Your task to perform on an android device: Open battery settings Image 0: 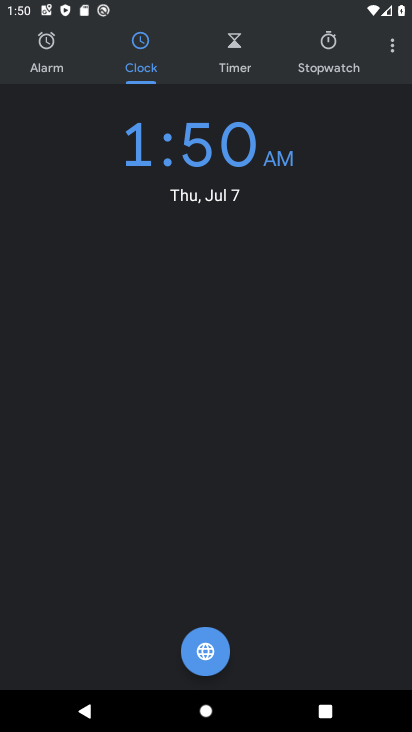
Step 0: press back button
Your task to perform on an android device: Open battery settings Image 1: 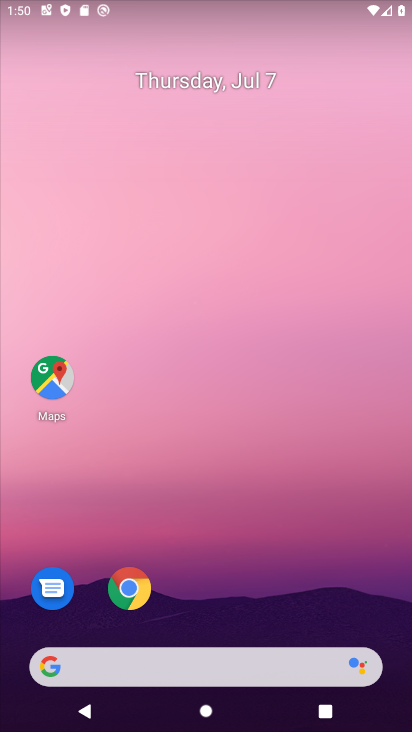
Step 1: drag from (191, 651) to (269, 57)
Your task to perform on an android device: Open battery settings Image 2: 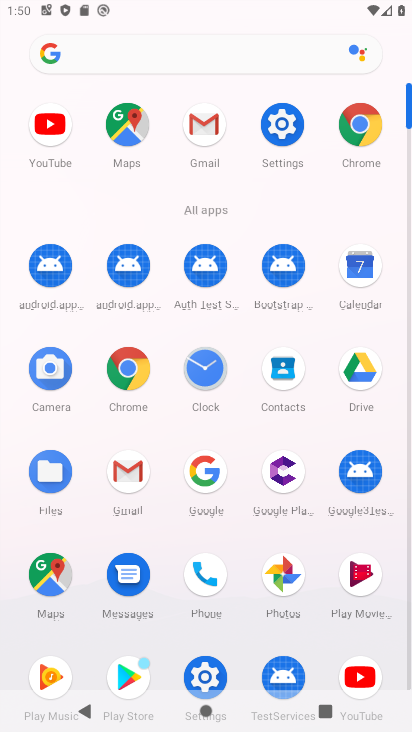
Step 2: click (288, 123)
Your task to perform on an android device: Open battery settings Image 3: 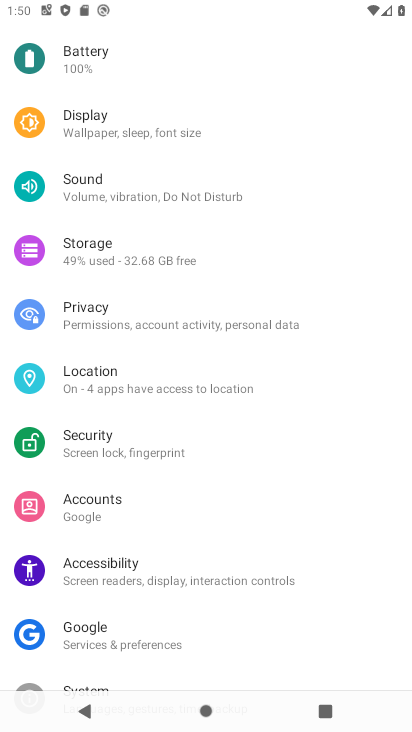
Step 3: click (115, 58)
Your task to perform on an android device: Open battery settings Image 4: 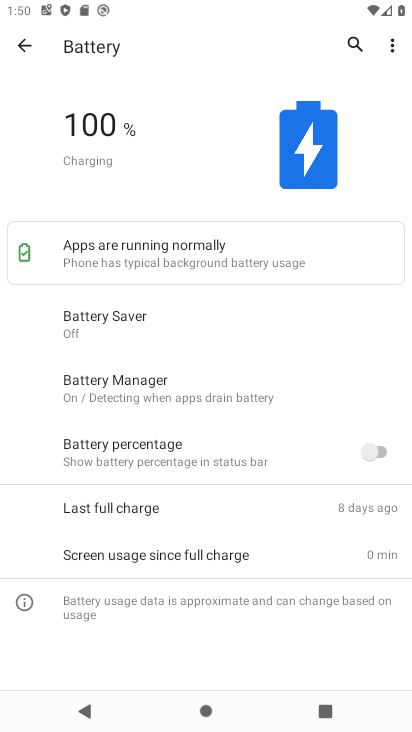
Step 4: task complete